Your task to perform on an android device: open app "Facebook Messenger" (install if not already installed) Image 0: 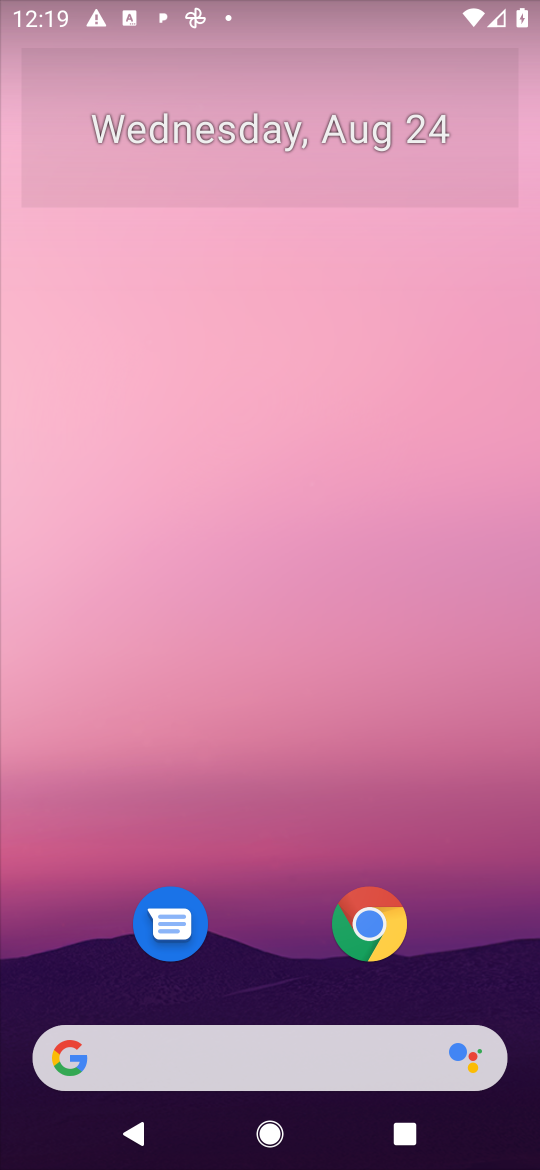
Step 0: press home button
Your task to perform on an android device: open app "Facebook Messenger" (install if not already installed) Image 1: 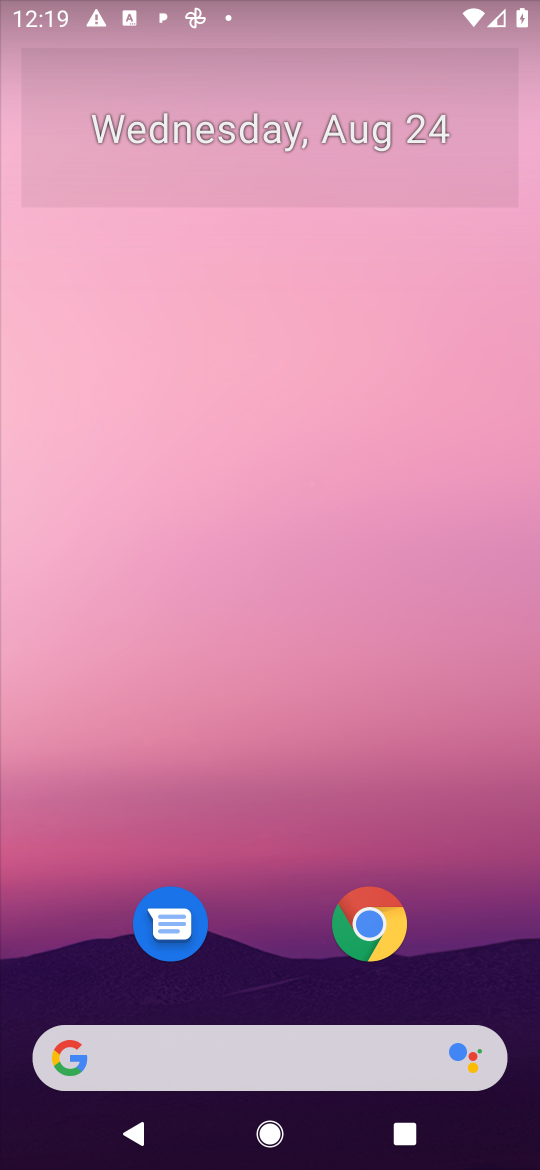
Step 1: drag from (493, 969) to (477, 110)
Your task to perform on an android device: open app "Facebook Messenger" (install if not already installed) Image 2: 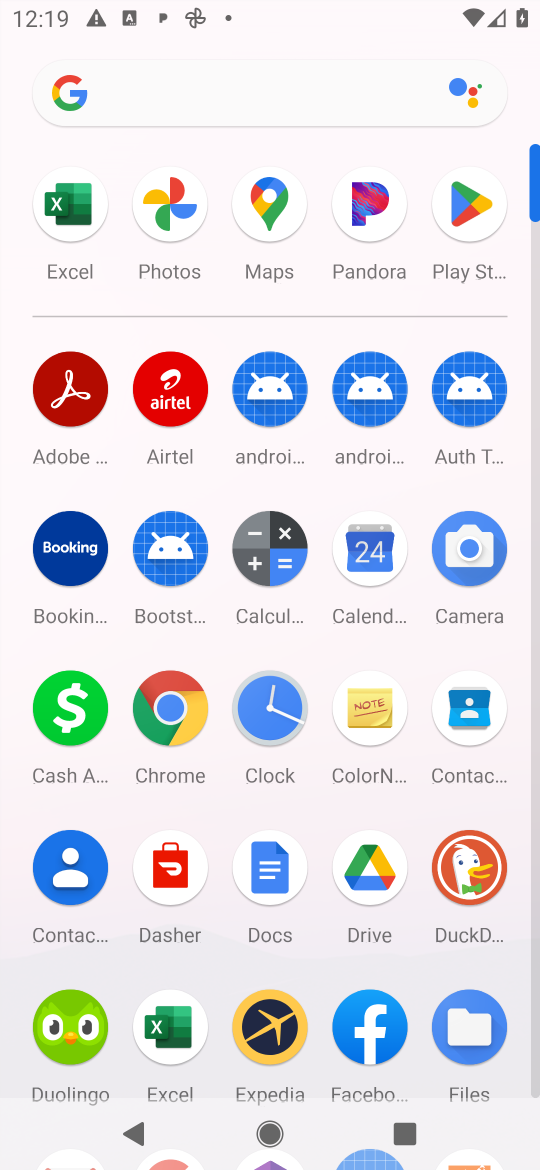
Step 2: click (473, 200)
Your task to perform on an android device: open app "Facebook Messenger" (install if not already installed) Image 3: 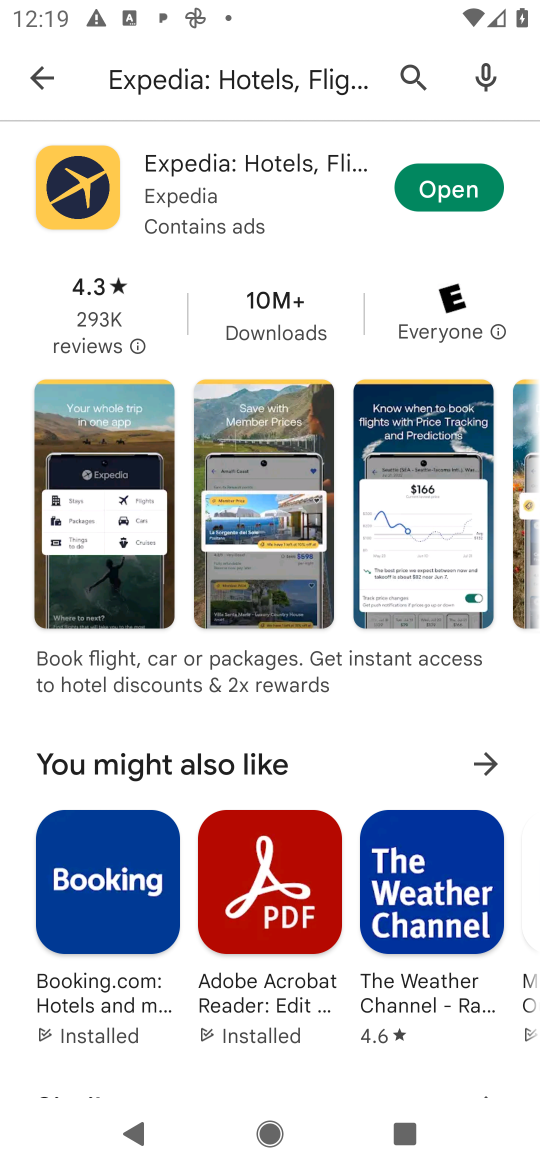
Step 3: press back button
Your task to perform on an android device: open app "Facebook Messenger" (install if not already installed) Image 4: 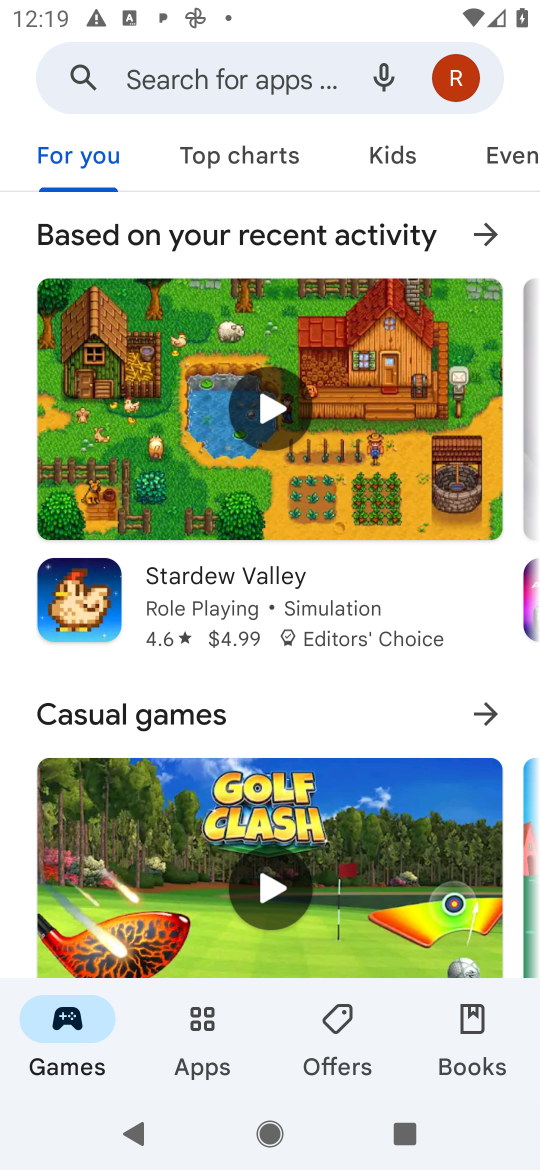
Step 4: click (289, 65)
Your task to perform on an android device: open app "Facebook Messenger" (install if not already installed) Image 5: 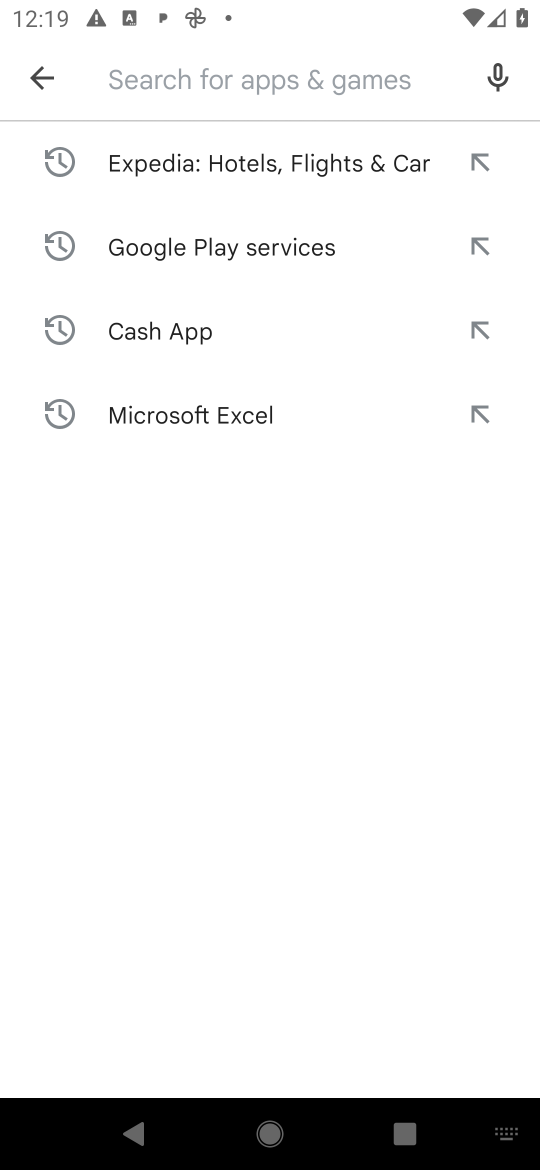
Step 5: press enter
Your task to perform on an android device: open app "Facebook Messenger" (install if not already installed) Image 6: 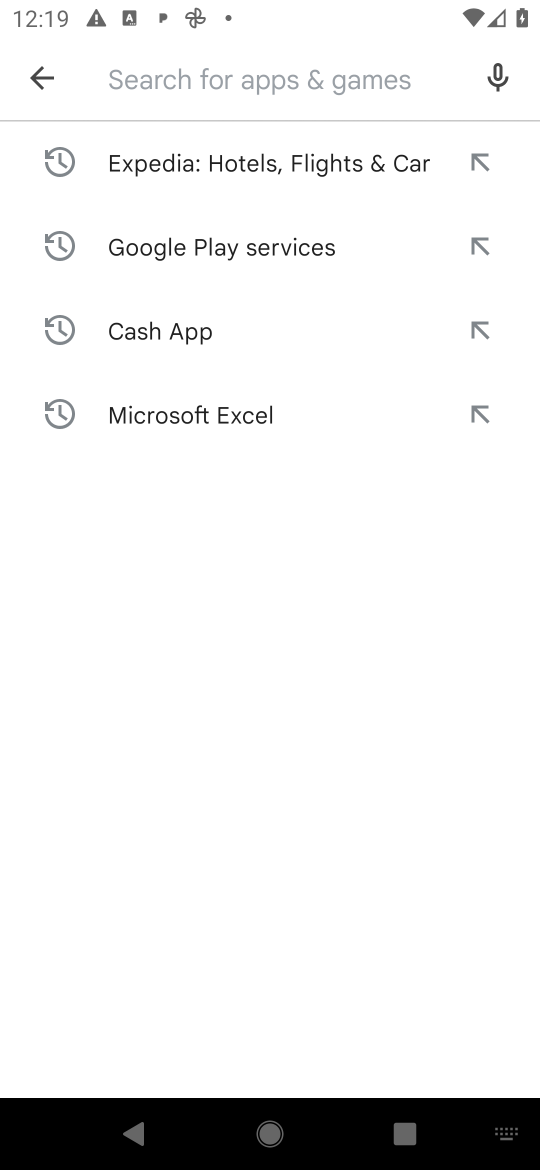
Step 6: type "Facebook Messenger"
Your task to perform on an android device: open app "Facebook Messenger" (install if not already installed) Image 7: 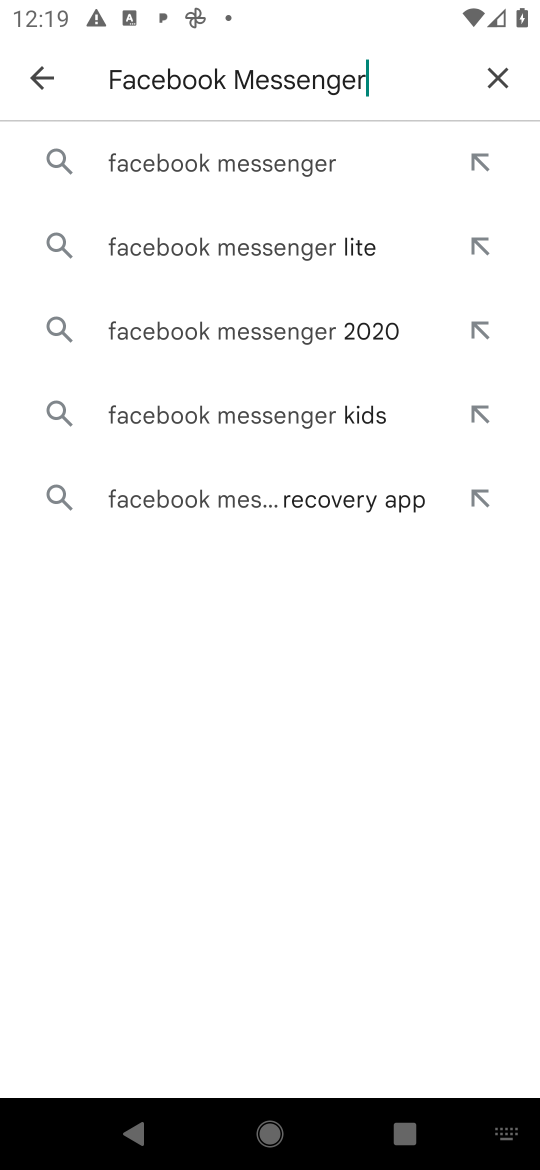
Step 7: click (300, 170)
Your task to perform on an android device: open app "Facebook Messenger" (install if not already installed) Image 8: 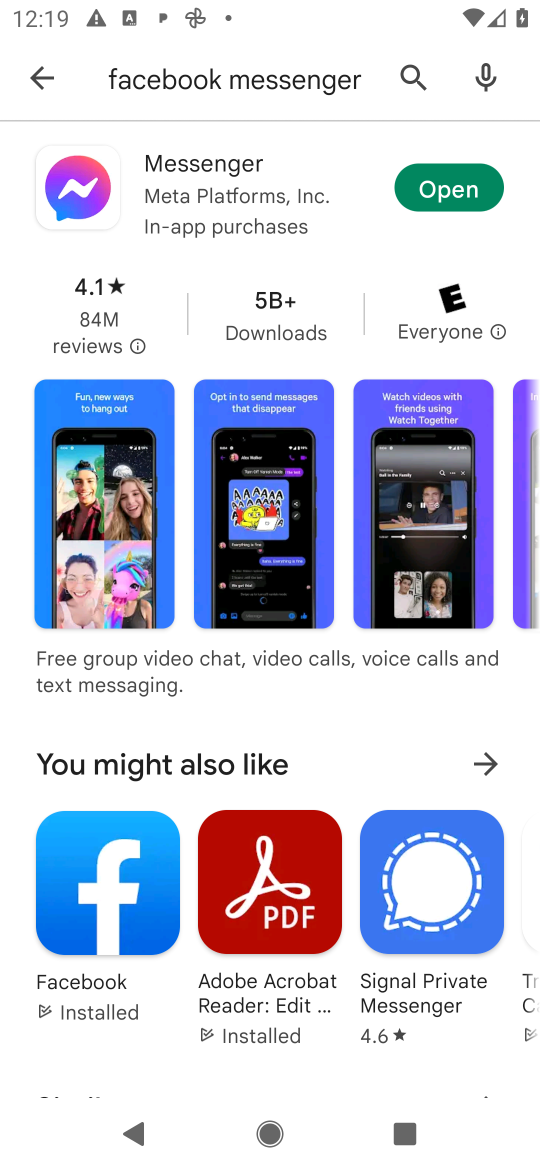
Step 8: click (452, 191)
Your task to perform on an android device: open app "Facebook Messenger" (install if not already installed) Image 9: 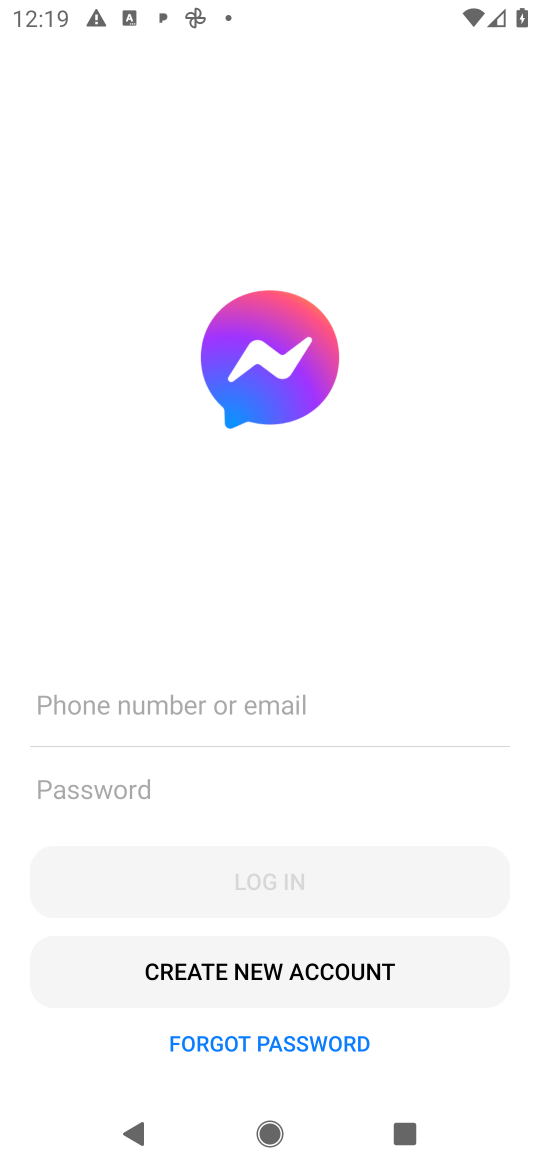
Step 9: task complete